Your task to perform on an android device: delete a single message in the gmail app Image 0: 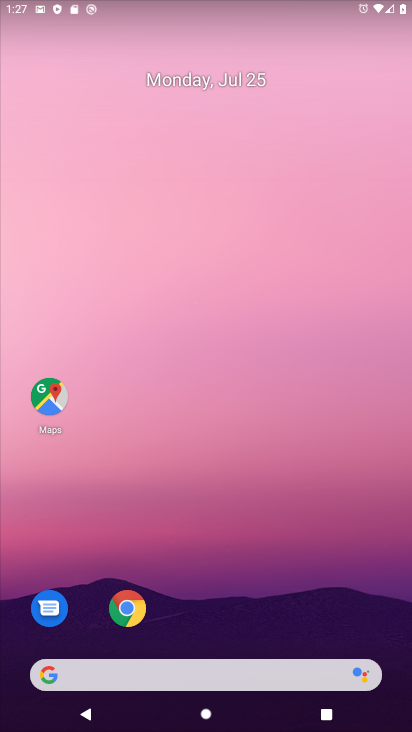
Step 0: drag from (242, 583) to (219, 102)
Your task to perform on an android device: delete a single message in the gmail app Image 1: 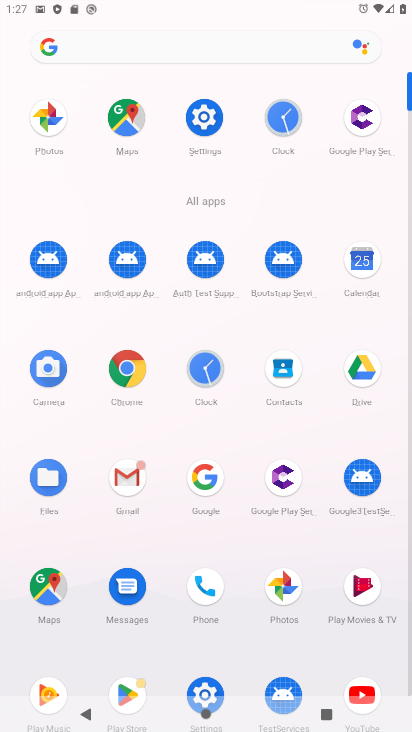
Step 1: click (135, 486)
Your task to perform on an android device: delete a single message in the gmail app Image 2: 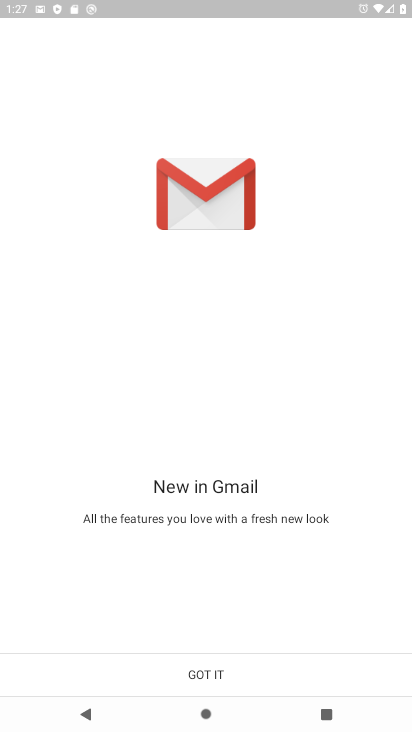
Step 2: click (234, 665)
Your task to perform on an android device: delete a single message in the gmail app Image 3: 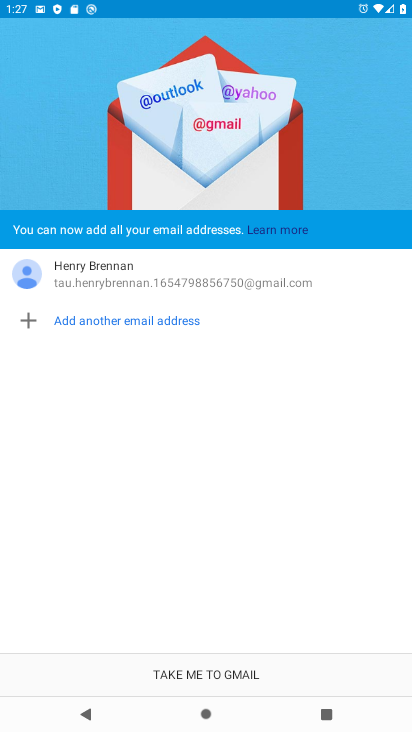
Step 3: click (222, 667)
Your task to perform on an android device: delete a single message in the gmail app Image 4: 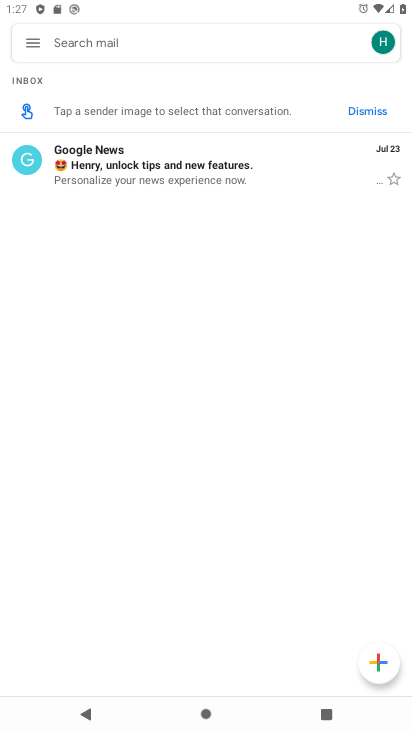
Step 4: click (206, 152)
Your task to perform on an android device: delete a single message in the gmail app Image 5: 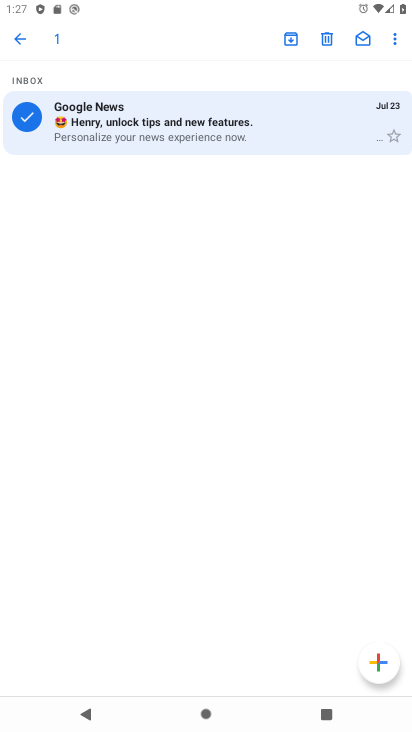
Step 5: click (322, 40)
Your task to perform on an android device: delete a single message in the gmail app Image 6: 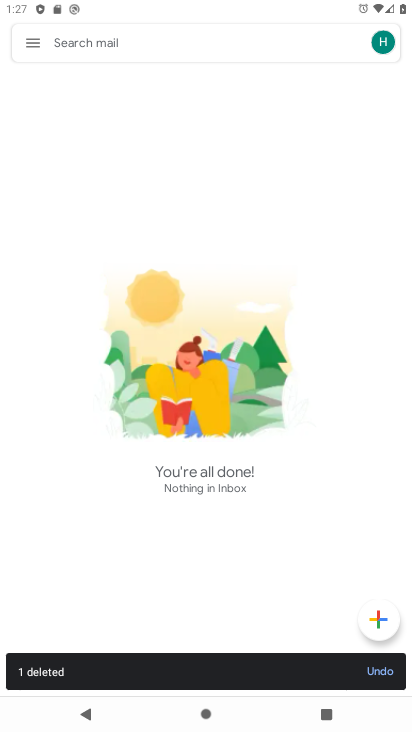
Step 6: task complete